Your task to perform on an android device: Open notification settings Image 0: 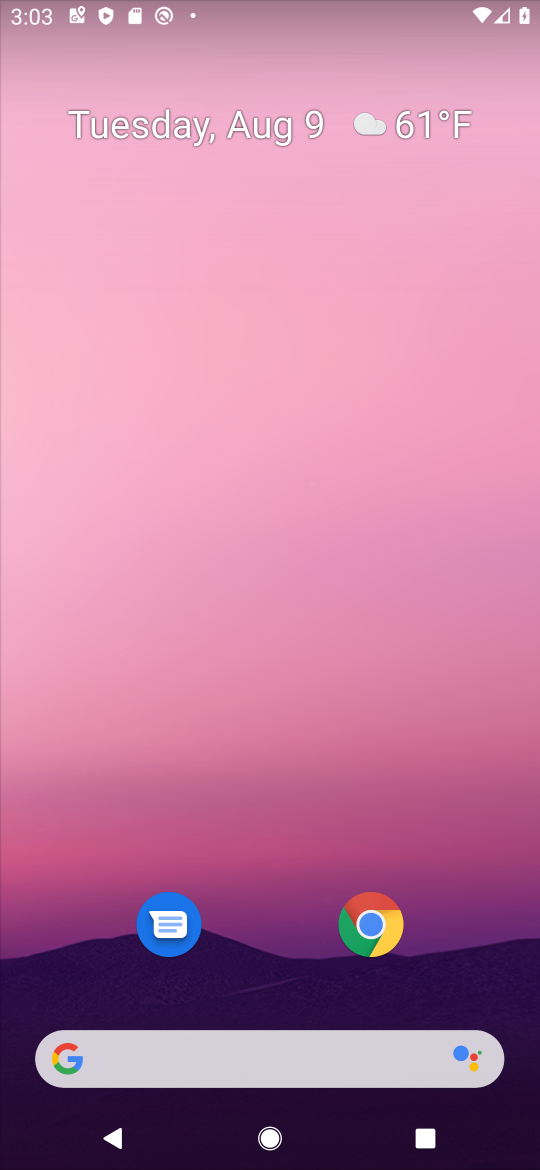
Step 0: drag from (286, 891) to (362, 49)
Your task to perform on an android device: Open notification settings Image 1: 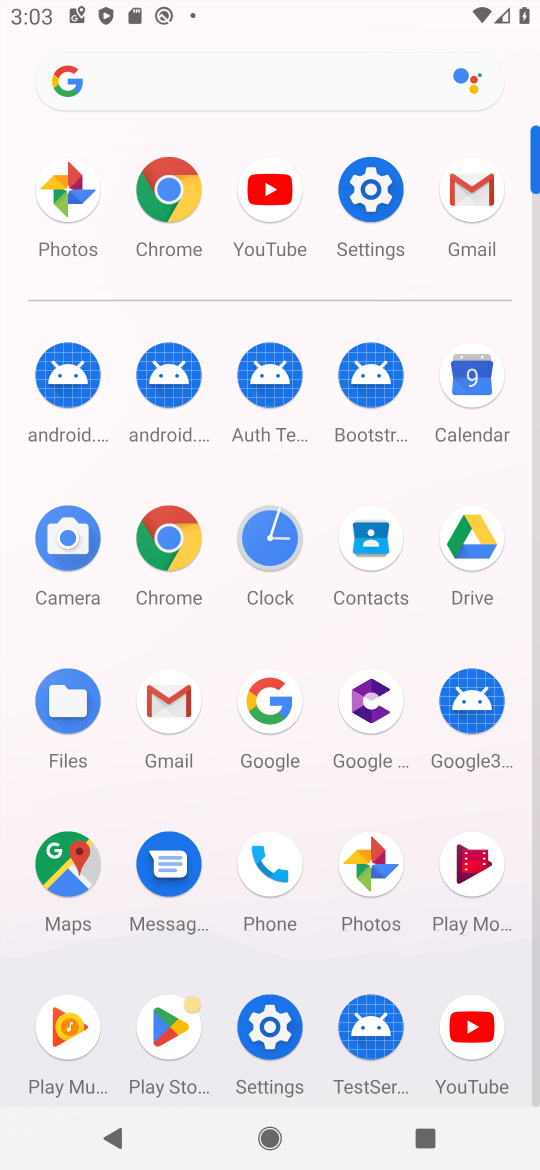
Step 1: click (373, 190)
Your task to perform on an android device: Open notification settings Image 2: 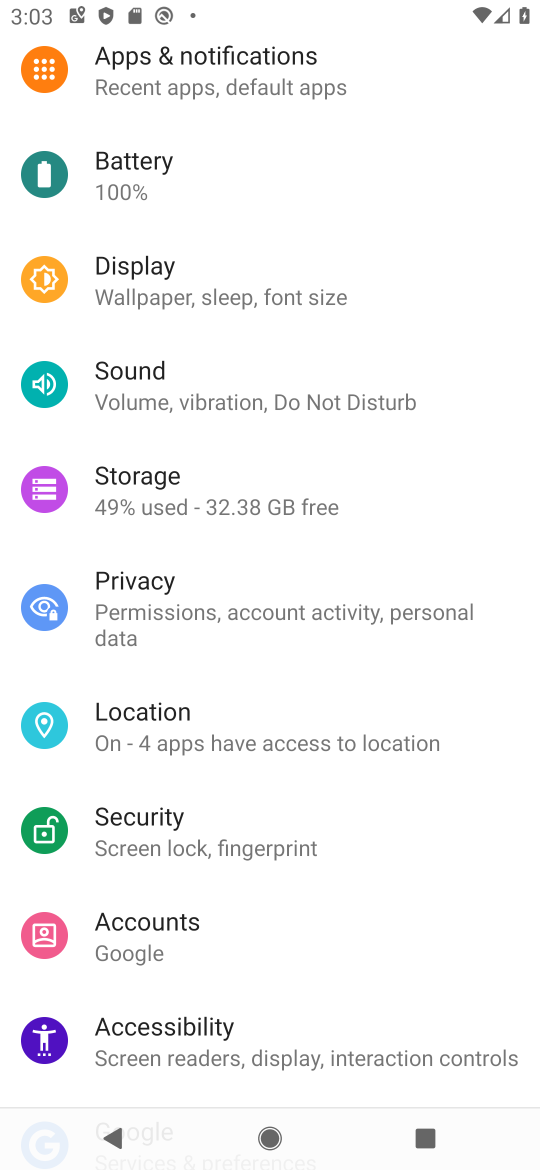
Step 2: click (296, 87)
Your task to perform on an android device: Open notification settings Image 3: 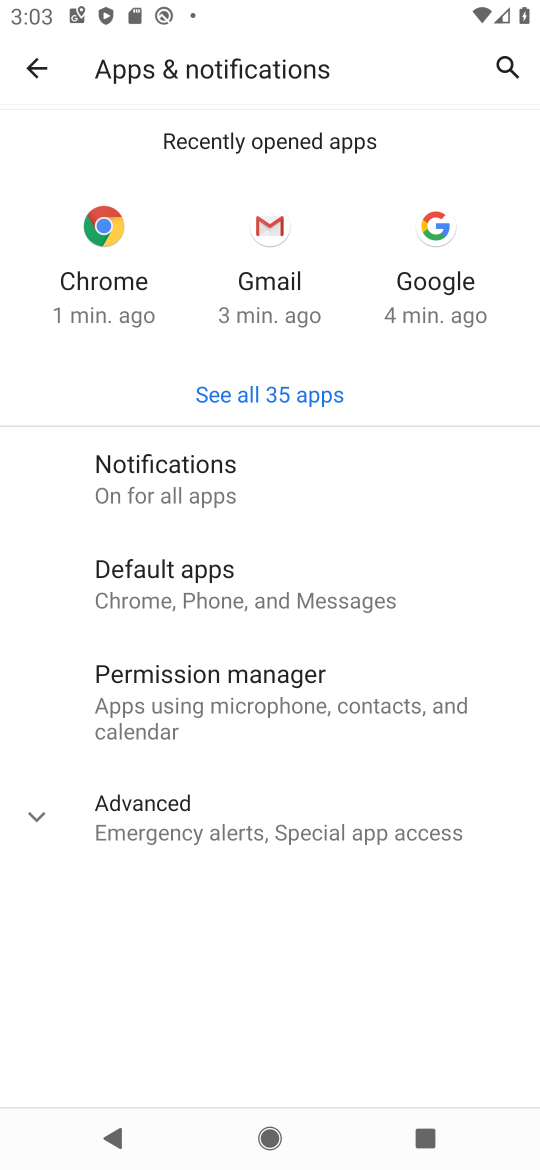
Step 3: click (189, 464)
Your task to perform on an android device: Open notification settings Image 4: 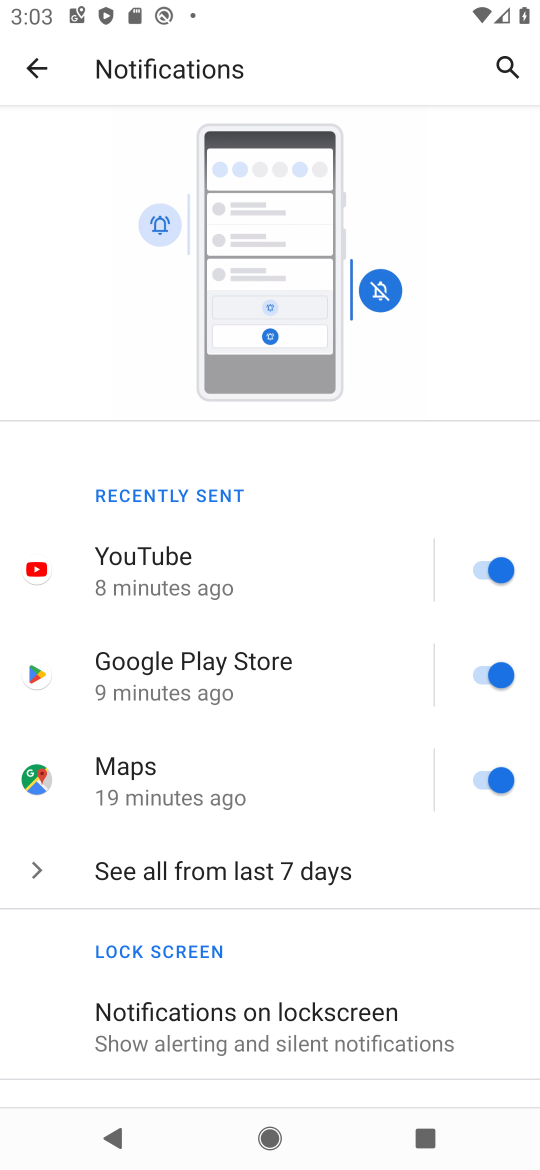
Step 4: task complete